Your task to perform on an android device: Toggle the flashlight Image 0: 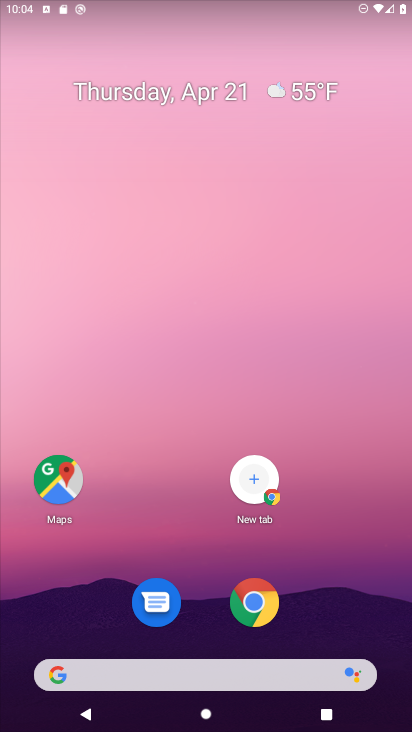
Step 0: drag from (207, 636) to (230, 3)
Your task to perform on an android device: Toggle the flashlight Image 1: 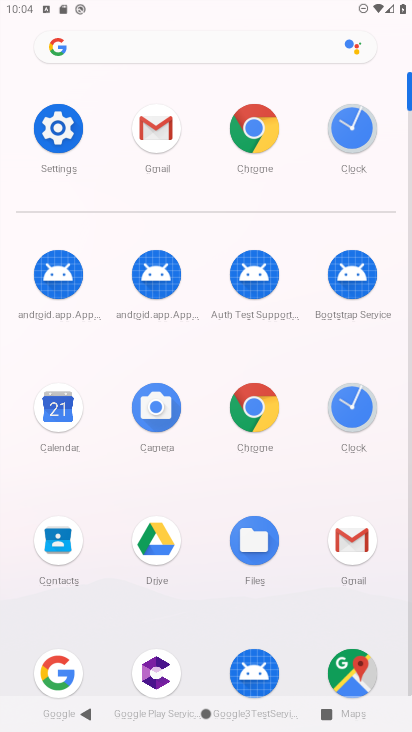
Step 1: click (77, 142)
Your task to perform on an android device: Toggle the flashlight Image 2: 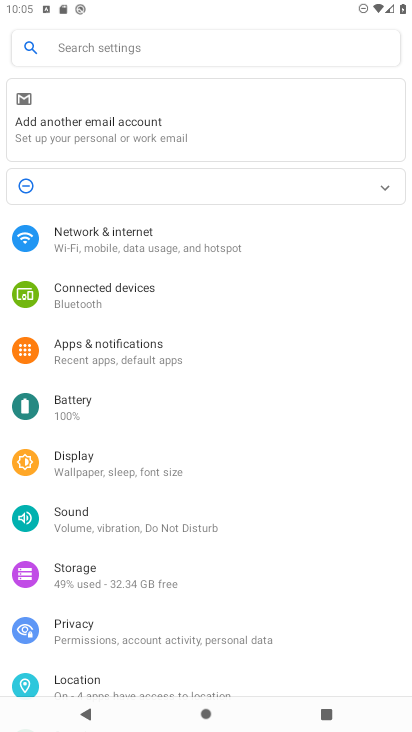
Step 2: task complete